Your task to perform on an android device: Open calendar and show me the third week of next month Image 0: 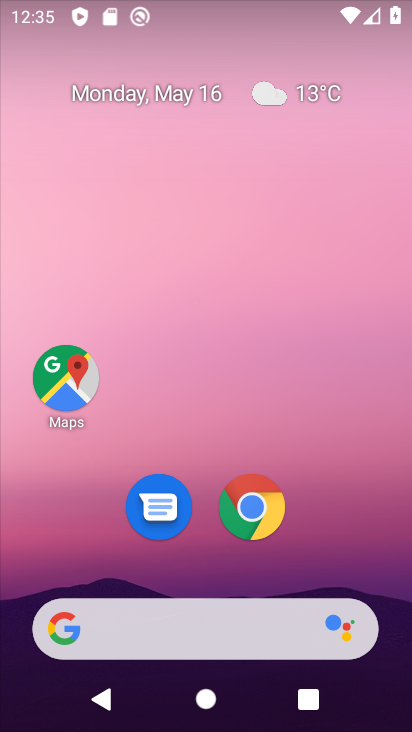
Step 0: drag from (186, 566) to (177, 244)
Your task to perform on an android device: Open calendar and show me the third week of next month Image 1: 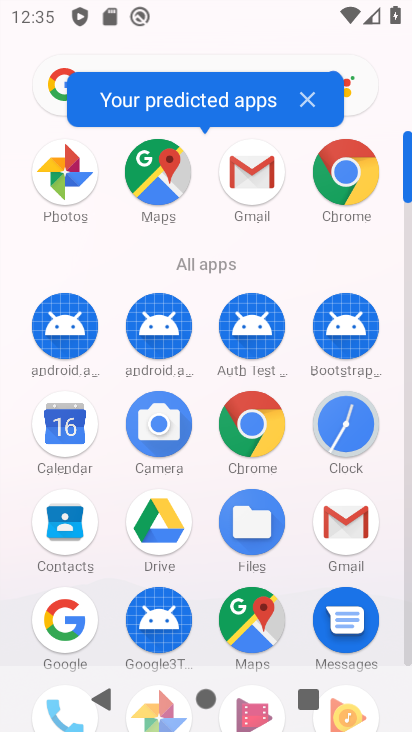
Step 1: click (71, 441)
Your task to perform on an android device: Open calendar and show me the third week of next month Image 2: 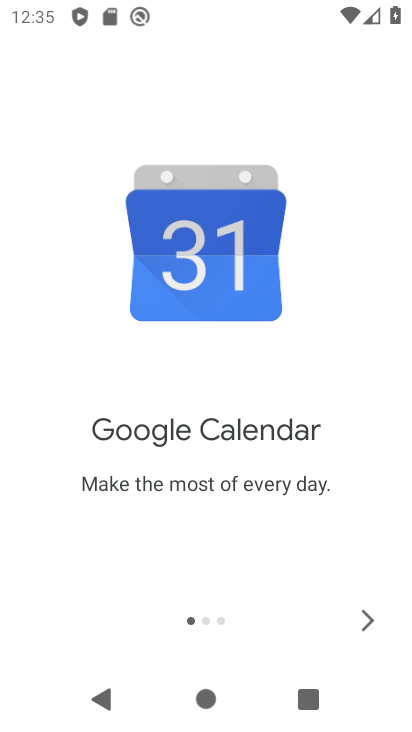
Step 2: click (361, 613)
Your task to perform on an android device: Open calendar and show me the third week of next month Image 3: 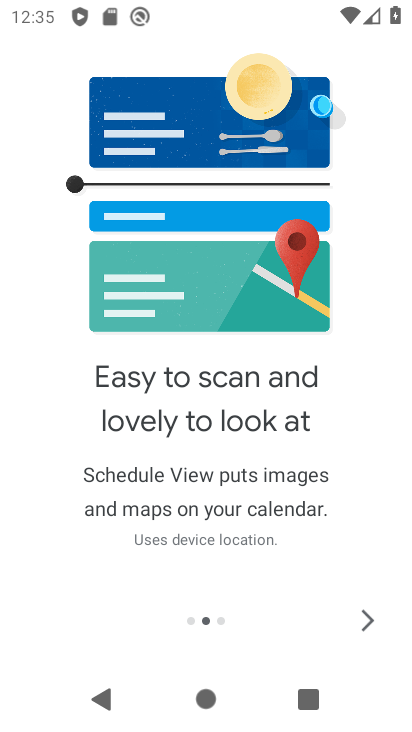
Step 3: click (361, 612)
Your task to perform on an android device: Open calendar and show me the third week of next month Image 4: 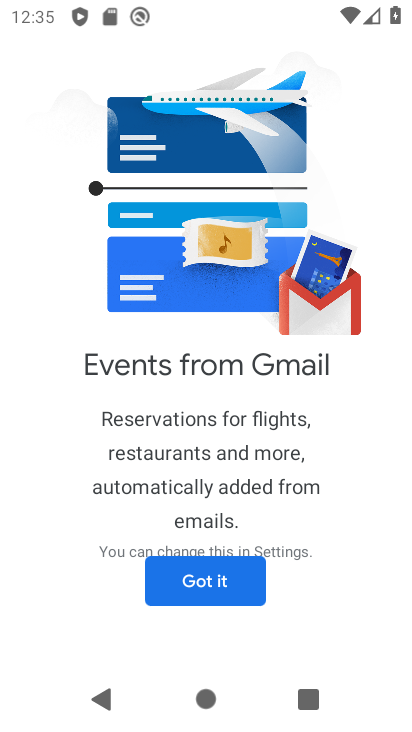
Step 4: click (362, 611)
Your task to perform on an android device: Open calendar and show me the third week of next month Image 5: 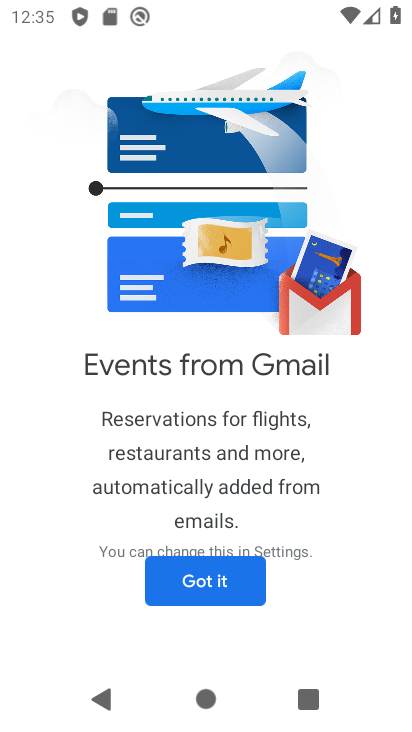
Step 5: click (213, 574)
Your task to perform on an android device: Open calendar and show me the third week of next month Image 6: 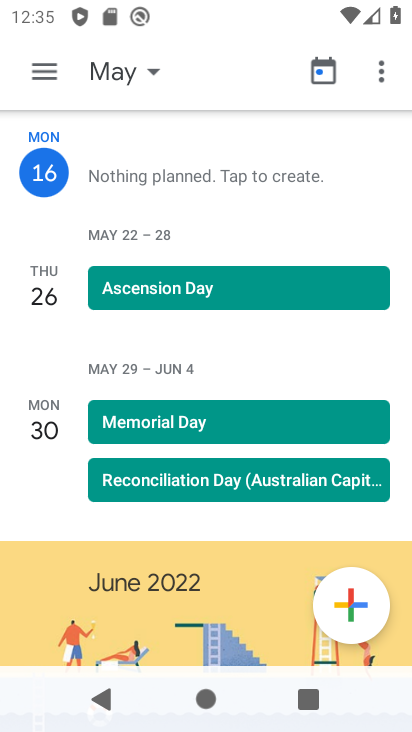
Step 6: click (140, 74)
Your task to perform on an android device: Open calendar and show me the third week of next month Image 7: 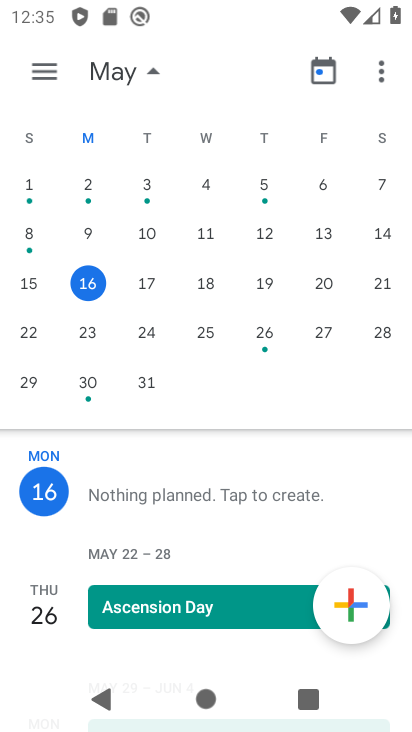
Step 7: drag from (358, 269) to (30, 273)
Your task to perform on an android device: Open calendar and show me the third week of next month Image 8: 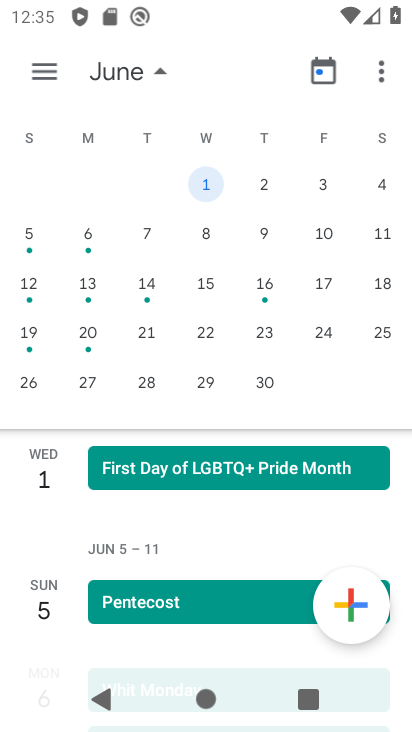
Step 8: click (30, 291)
Your task to perform on an android device: Open calendar and show me the third week of next month Image 9: 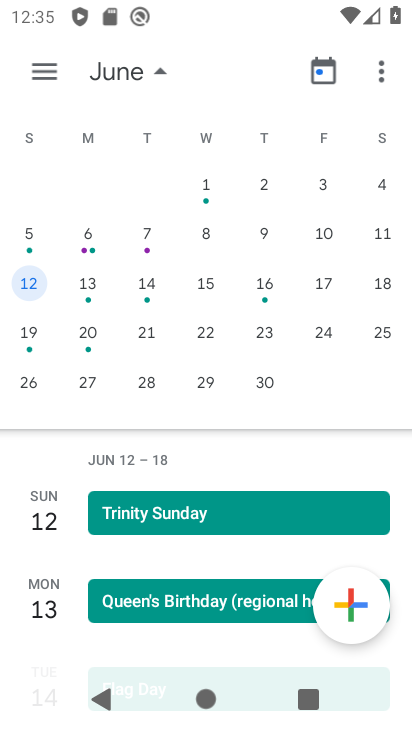
Step 9: task complete